Your task to perform on an android device: See recent photos Image 0: 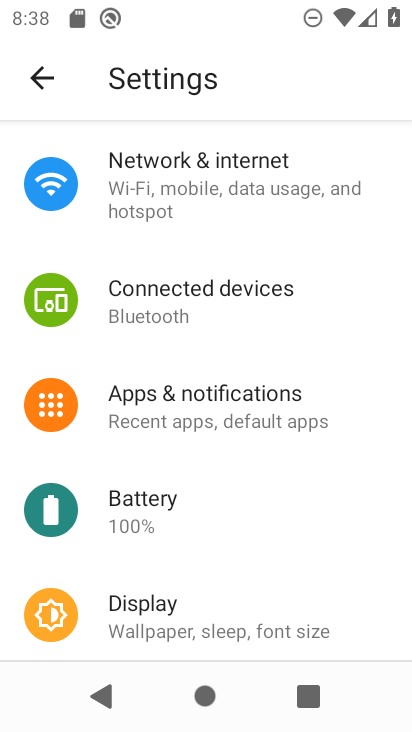
Step 0: press home button
Your task to perform on an android device: See recent photos Image 1: 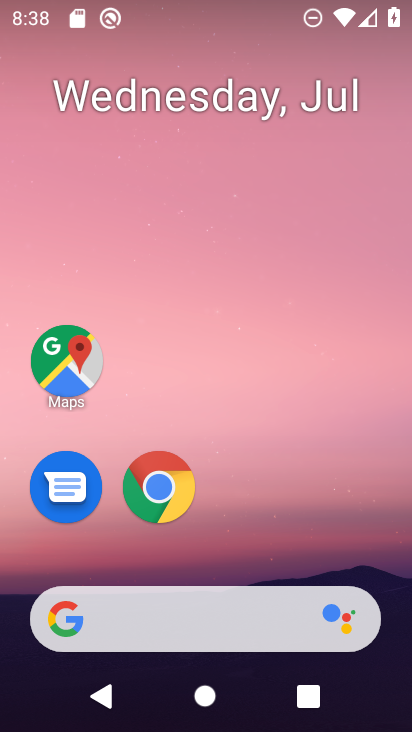
Step 1: drag from (360, 549) to (398, 148)
Your task to perform on an android device: See recent photos Image 2: 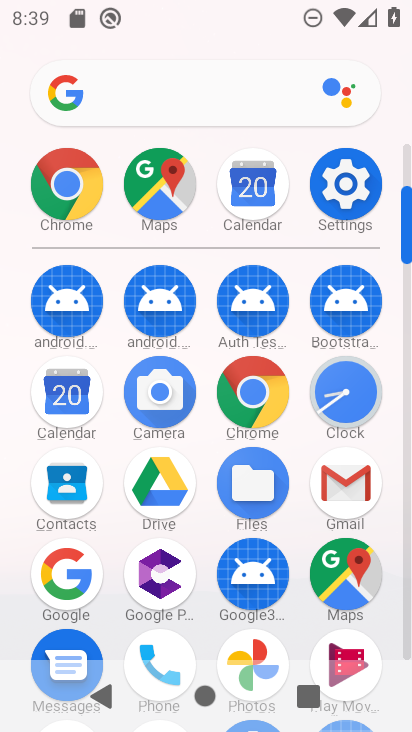
Step 2: drag from (393, 506) to (409, 443)
Your task to perform on an android device: See recent photos Image 3: 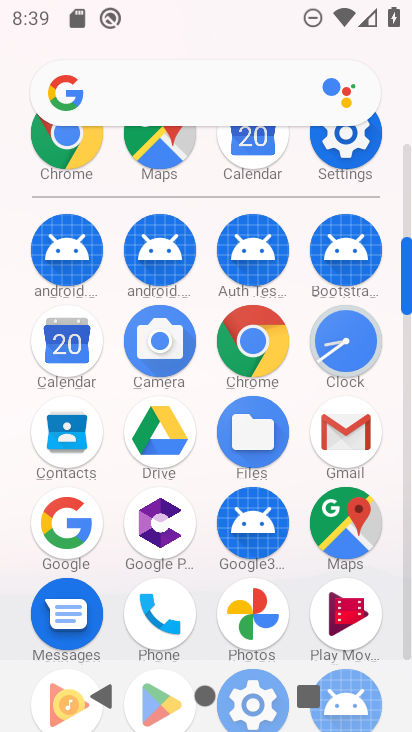
Step 3: click (250, 618)
Your task to perform on an android device: See recent photos Image 4: 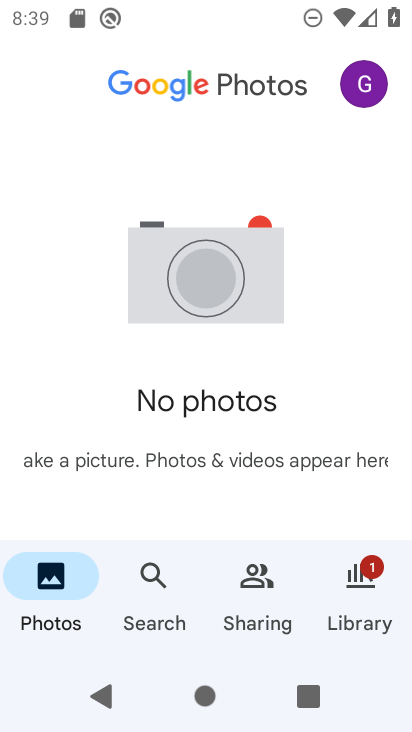
Step 4: task complete